Your task to perform on an android device: change your default location settings in chrome Image 0: 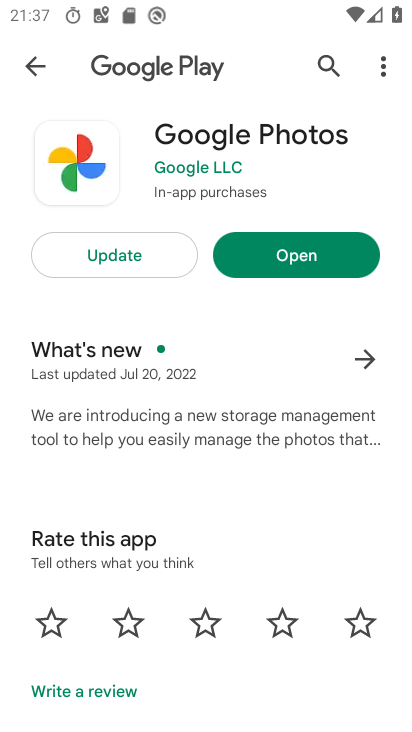
Step 0: press home button
Your task to perform on an android device: change your default location settings in chrome Image 1: 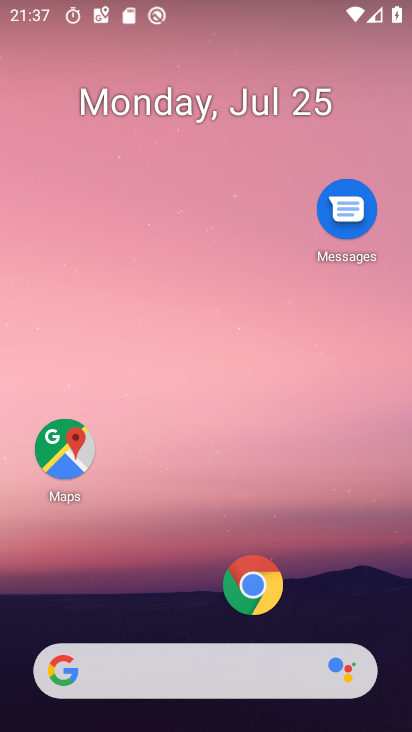
Step 1: click (246, 593)
Your task to perform on an android device: change your default location settings in chrome Image 2: 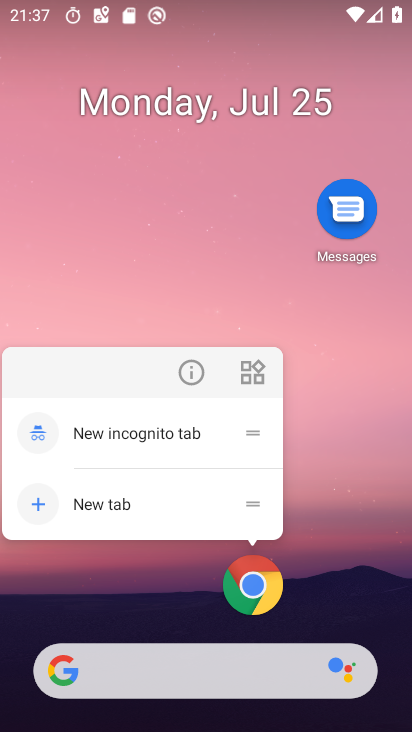
Step 2: click (257, 579)
Your task to perform on an android device: change your default location settings in chrome Image 3: 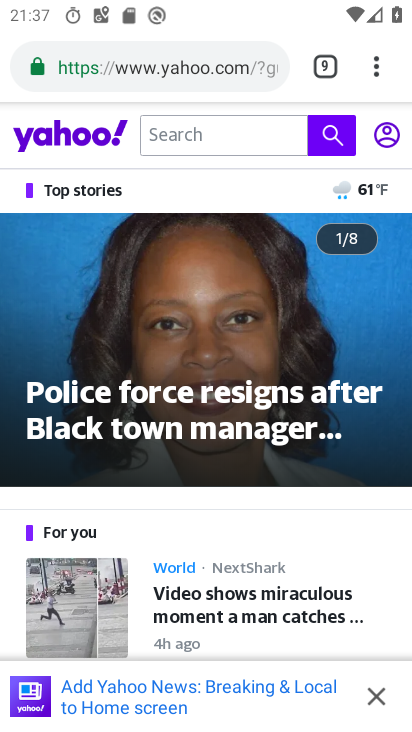
Step 3: drag from (371, 59) to (178, 594)
Your task to perform on an android device: change your default location settings in chrome Image 4: 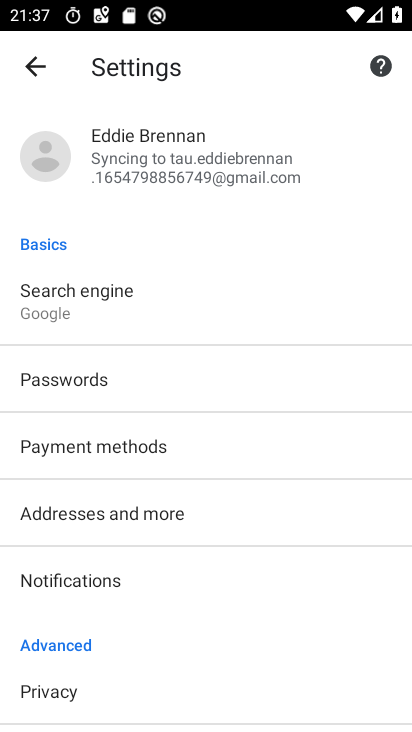
Step 4: drag from (112, 650) to (227, 354)
Your task to perform on an android device: change your default location settings in chrome Image 5: 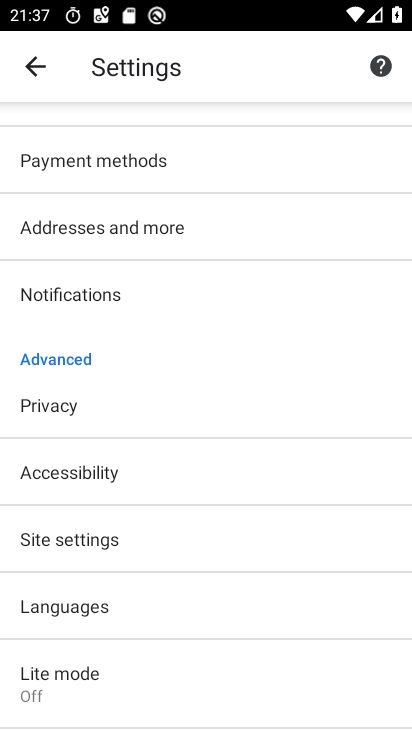
Step 5: click (102, 548)
Your task to perform on an android device: change your default location settings in chrome Image 6: 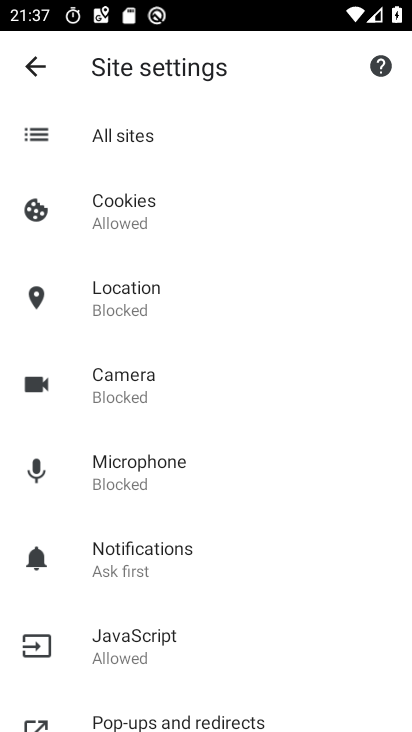
Step 6: click (147, 298)
Your task to perform on an android device: change your default location settings in chrome Image 7: 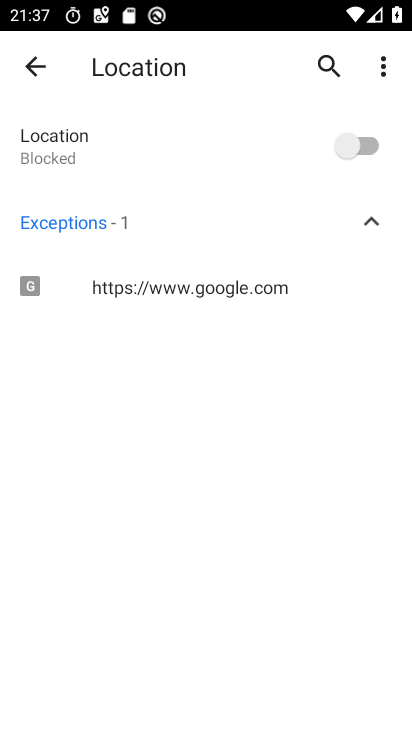
Step 7: click (363, 144)
Your task to perform on an android device: change your default location settings in chrome Image 8: 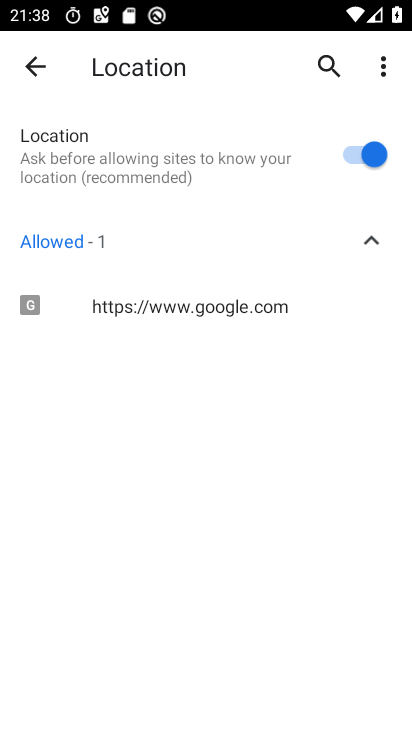
Step 8: task complete